Your task to perform on an android device: turn off location history Image 0: 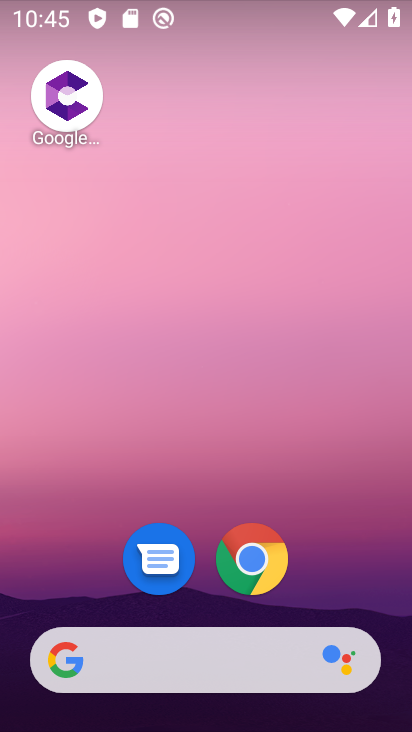
Step 0: drag from (78, 635) to (225, 99)
Your task to perform on an android device: turn off location history Image 1: 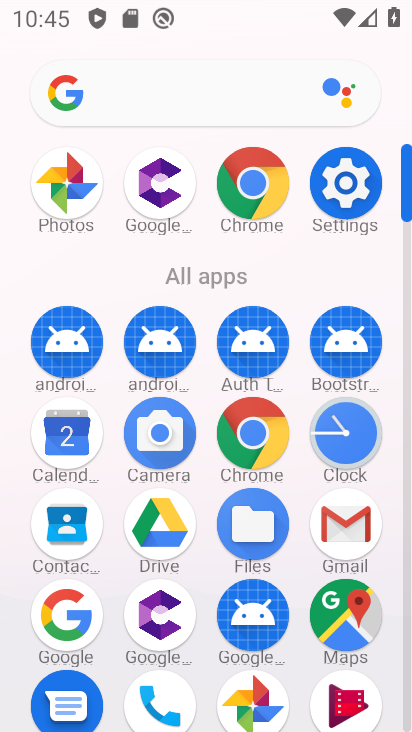
Step 1: drag from (199, 712) to (275, 320)
Your task to perform on an android device: turn off location history Image 2: 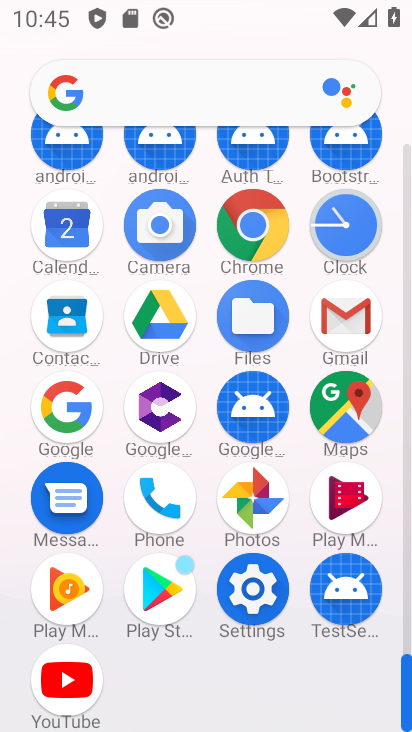
Step 2: click (249, 625)
Your task to perform on an android device: turn off location history Image 3: 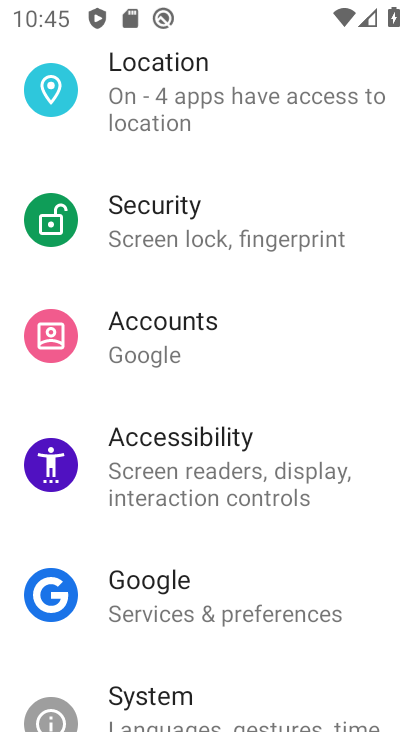
Step 3: drag from (265, 365) to (277, 655)
Your task to perform on an android device: turn off location history Image 4: 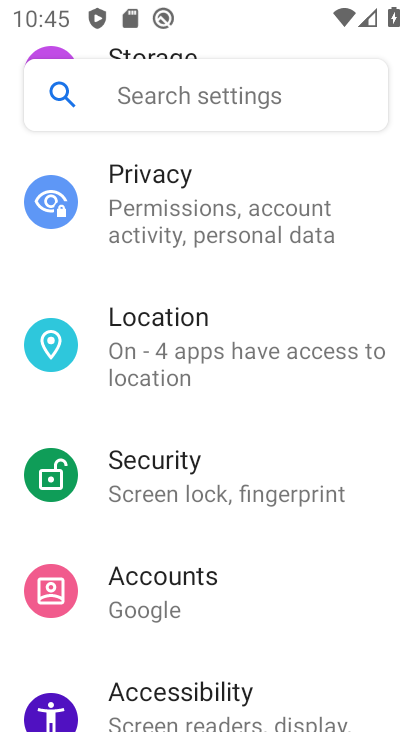
Step 4: click (226, 388)
Your task to perform on an android device: turn off location history Image 5: 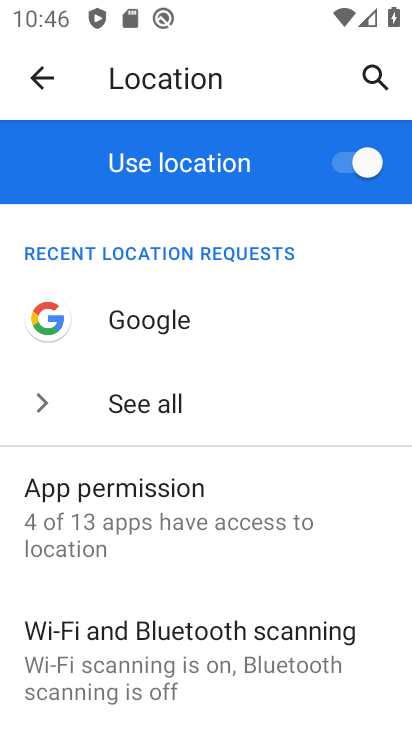
Step 5: drag from (208, 642) to (346, 217)
Your task to perform on an android device: turn off location history Image 6: 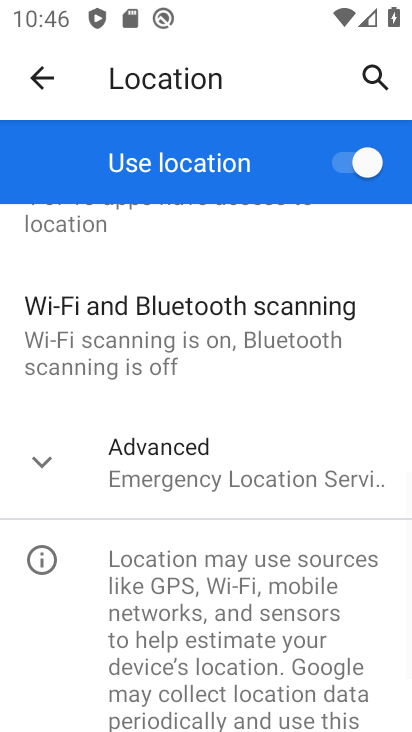
Step 6: click (269, 472)
Your task to perform on an android device: turn off location history Image 7: 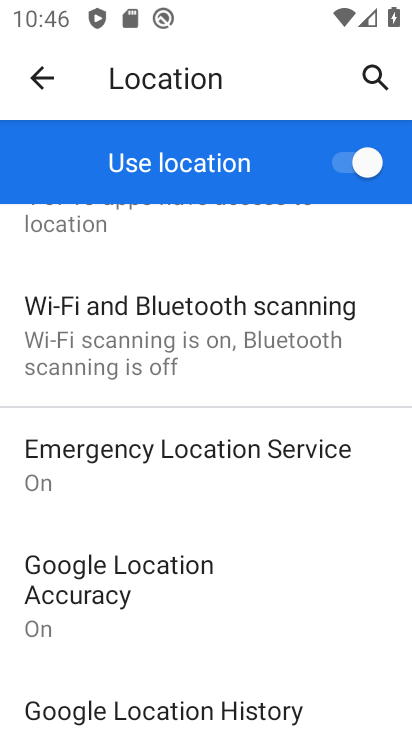
Step 7: drag from (232, 634) to (311, 369)
Your task to perform on an android device: turn off location history Image 8: 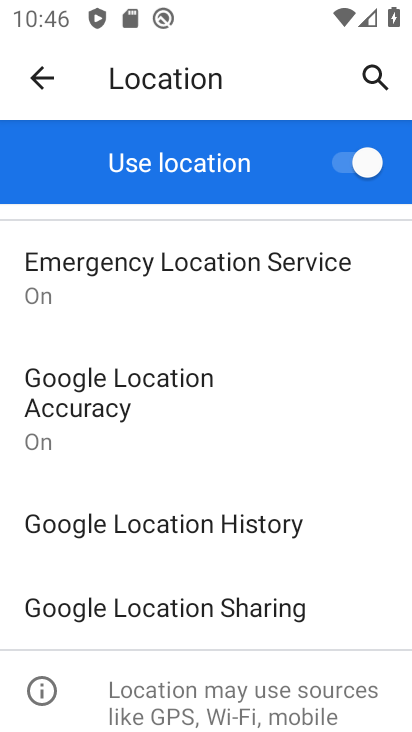
Step 8: click (286, 545)
Your task to perform on an android device: turn off location history Image 9: 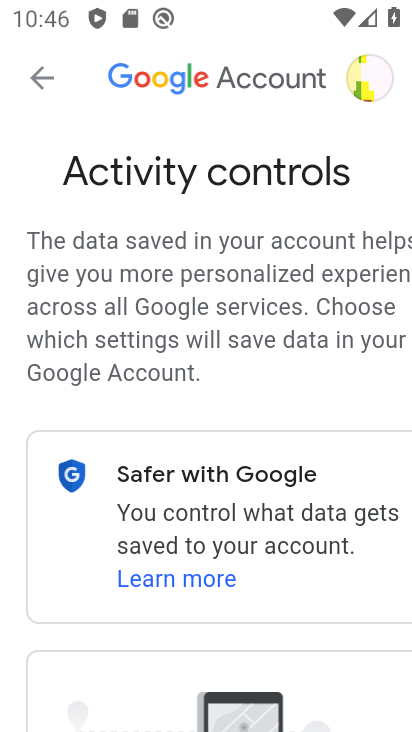
Step 9: task complete